Your task to perform on an android device: Open Youtube and go to "Your channel" Image 0: 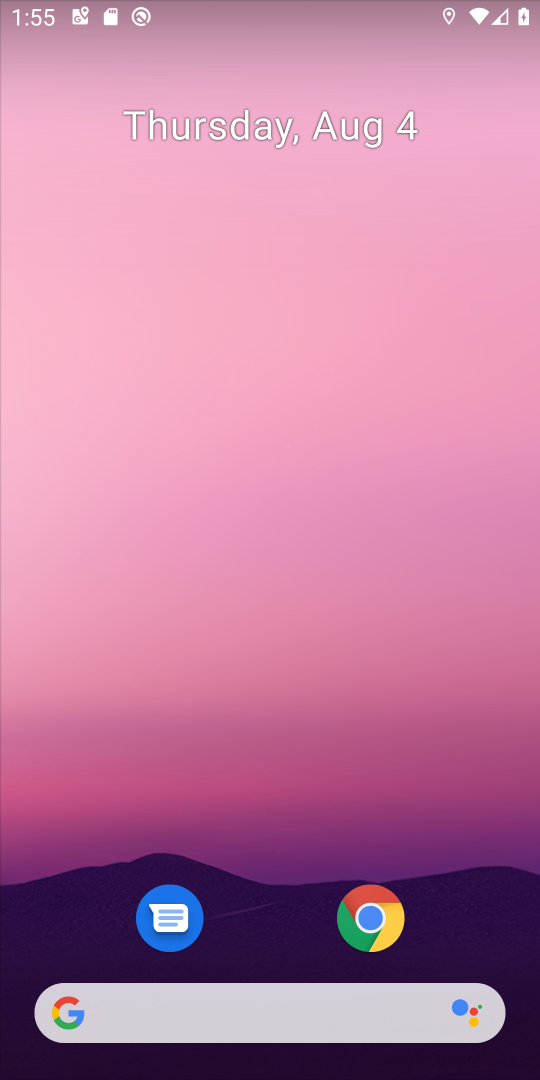
Step 0: drag from (289, 944) to (262, 455)
Your task to perform on an android device: Open Youtube and go to "Your channel" Image 1: 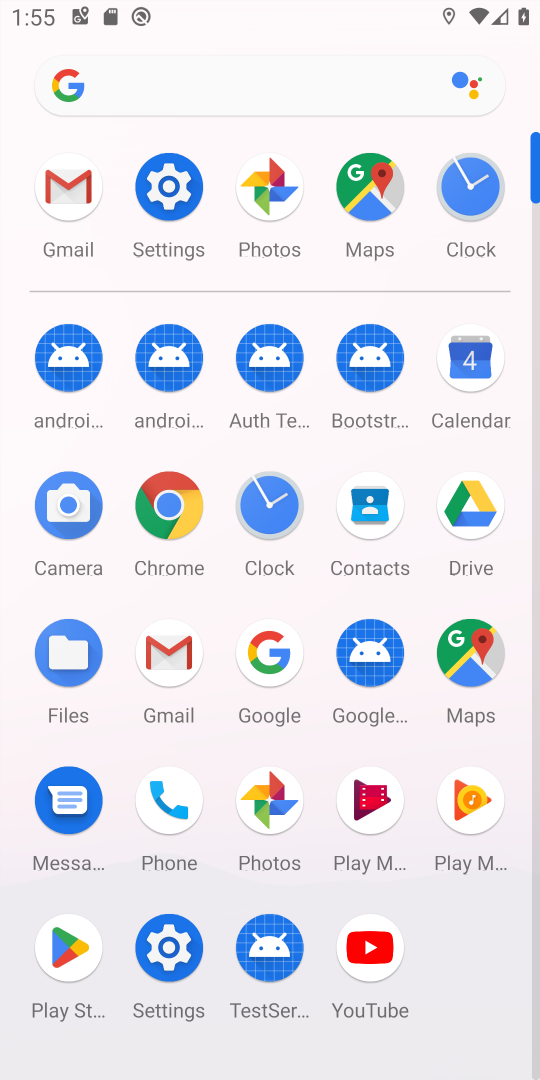
Step 1: click (356, 930)
Your task to perform on an android device: Open Youtube and go to "Your channel" Image 2: 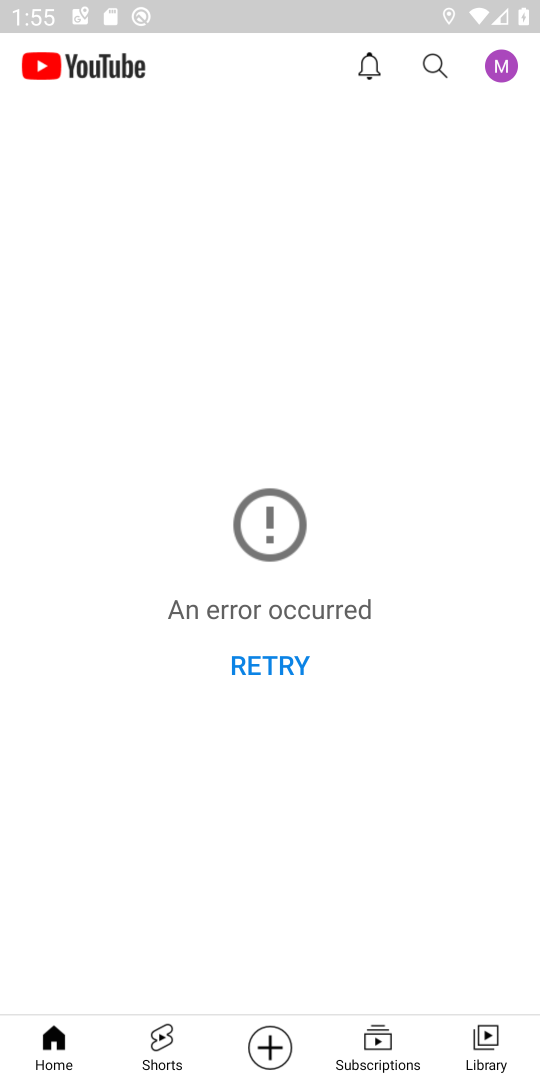
Step 2: click (498, 78)
Your task to perform on an android device: Open Youtube and go to "Your channel" Image 3: 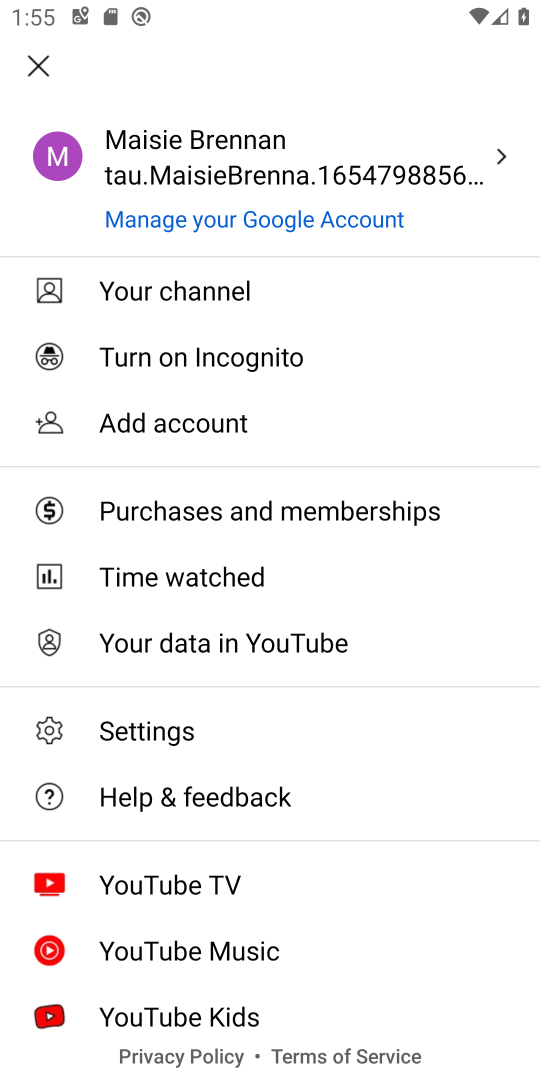
Step 3: click (284, 299)
Your task to perform on an android device: Open Youtube and go to "Your channel" Image 4: 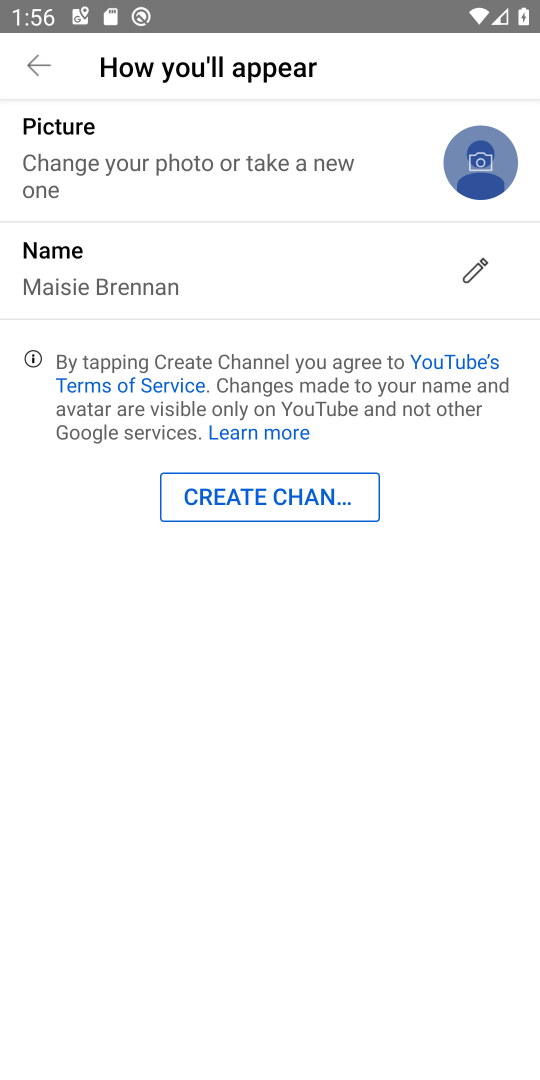
Step 4: task complete